Your task to perform on an android device: Open calendar and show me the second week of next month Image 0: 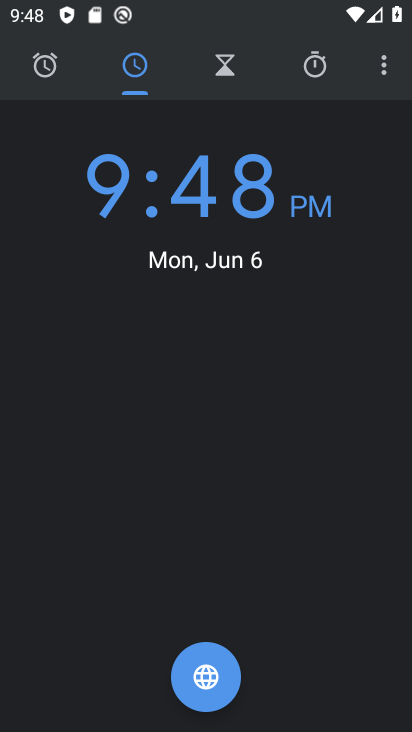
Step 0: press home button
Your task to perform on an android device: Open calendar and show me the second week of next month Image 1: 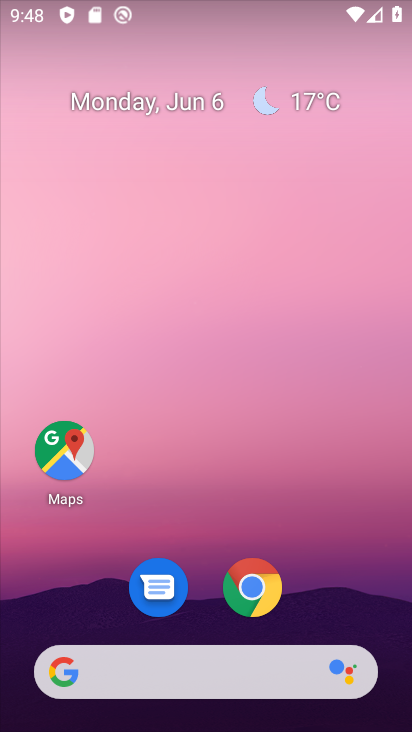
Step 1: drag from (355, 598) to (309, 128)
Your task to perform on an android device: Open calendar and show me the second week of next month Image 2: 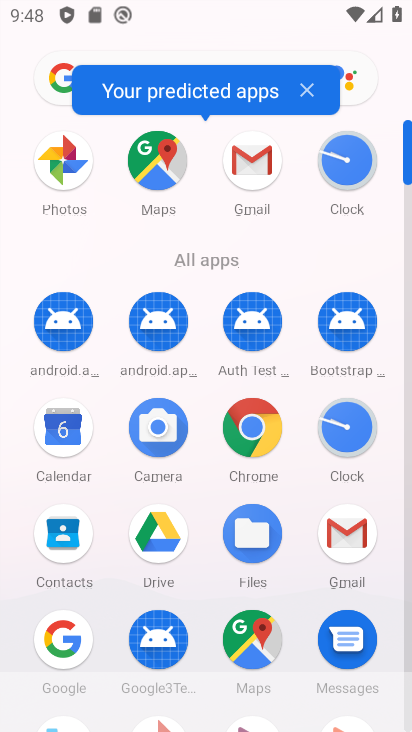
Step 2: click (68, 433)
Your task to perform on an android device: Open calendar and show me the second week of next month Image 3: 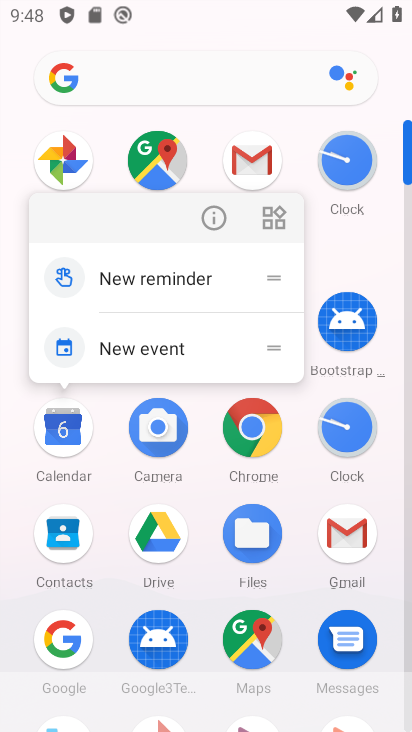
Step 3: click (68, 433)
Your task to perform on an android device: Open calendar and show me the second week of next month Image 4: 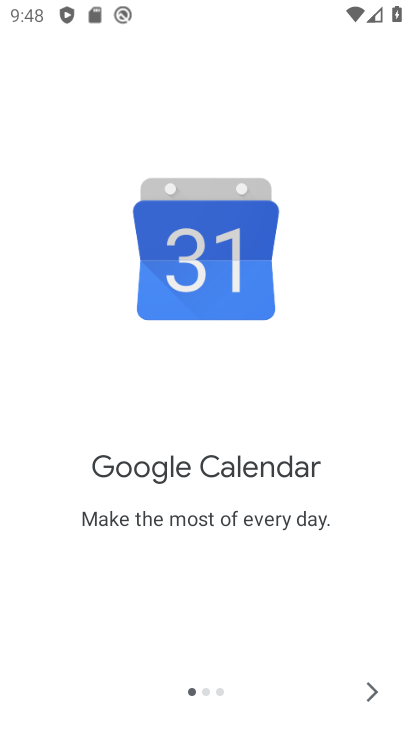
Step 4: click (386, 692)
Your task to perform on an android device: Open calendar and show me the second week of next month Image 5: 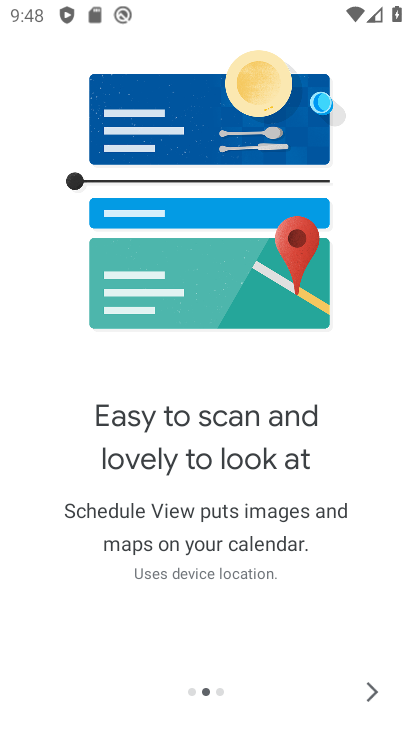
Step 5: click (386, 692)
Your task to perform on an android device: Open calendar and show me the second week of next month Image 6: 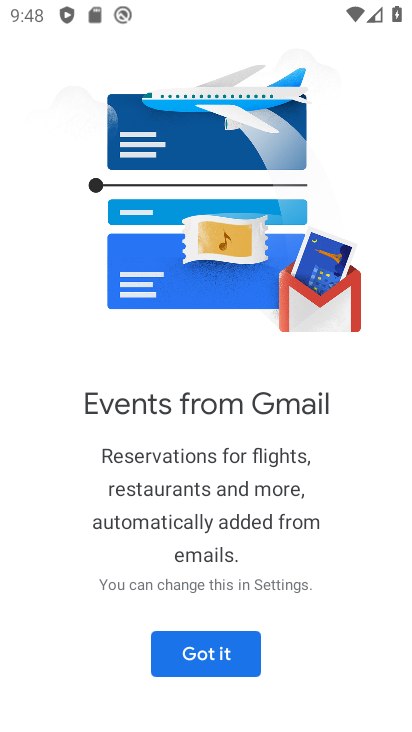
Step 6: click (218, 647)
Your task to perform on an android device: Open calendar and show me the second week of next month Image 7: 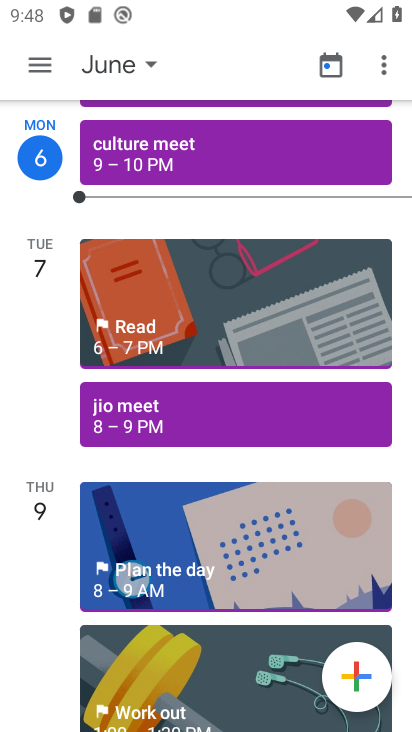
Step 7: click (42, 64)
Your task to perform on an android device: Open calendar and show me the second week of next month Image 8: 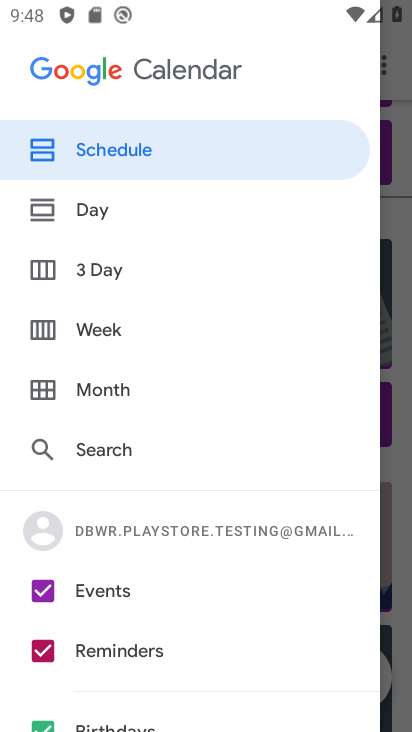
Step 8: click (124, 339)
Your task to perform on an android device: Open calendar and show me the second week of next month Image 9: 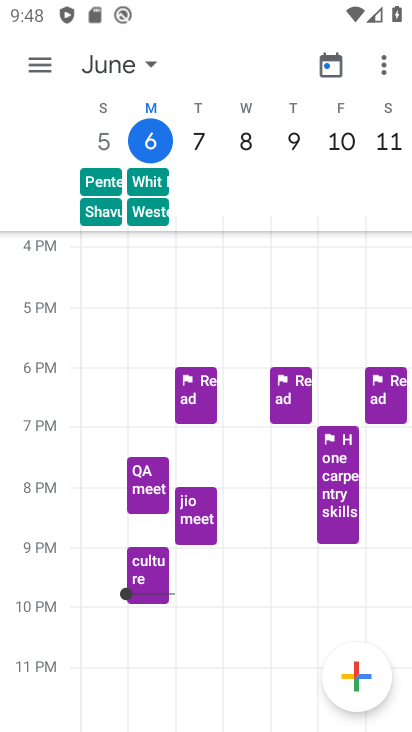
Step 9: click (146, 64)
Your task to perform on an android device: Open calendar and show me the second week of next month Image 10: 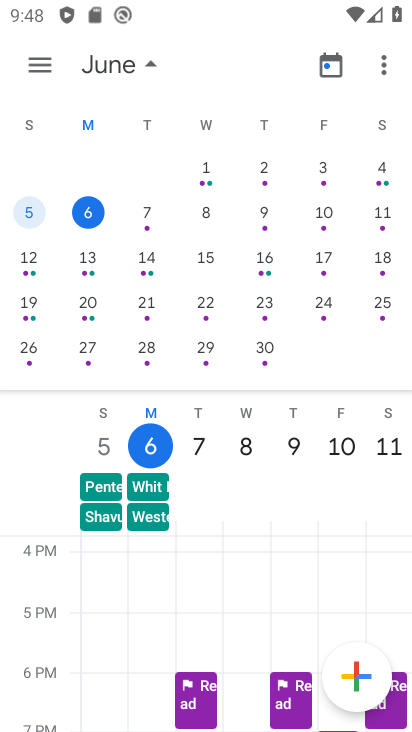
Step 10: drag from (392, 239) to (81, 268)
Your task to perform on an android device: Open calendar and show me the second week of next month Image 11: 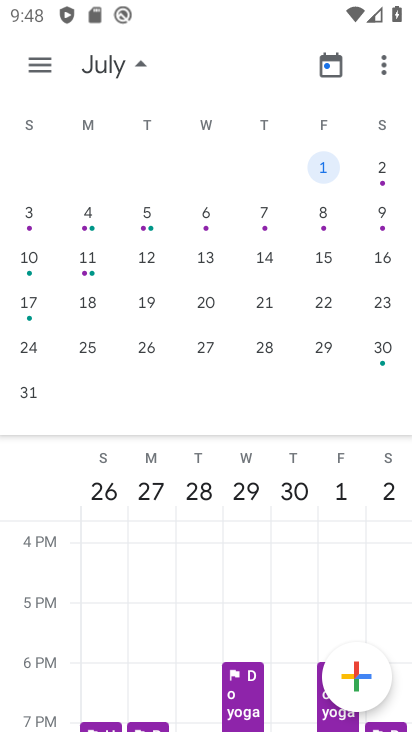
Step 11: click (213, 257)
Your task to perform on an android device: Open calendar and show me the second week of next month Image 12: 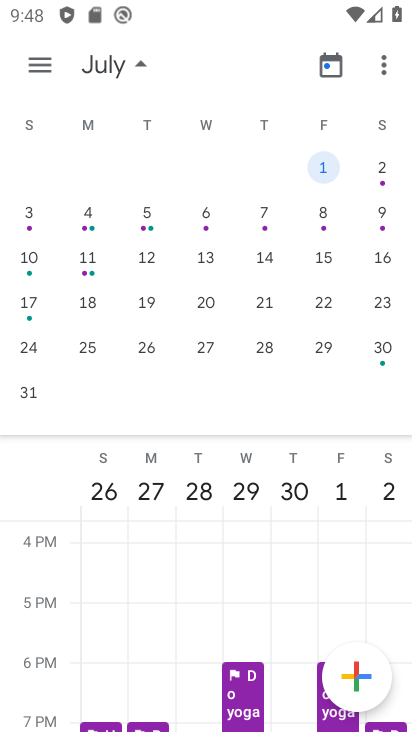
Step 12: click (204, 258)
Your task to perform on an android device: Open calendar and show me the second week of next month Image 13: 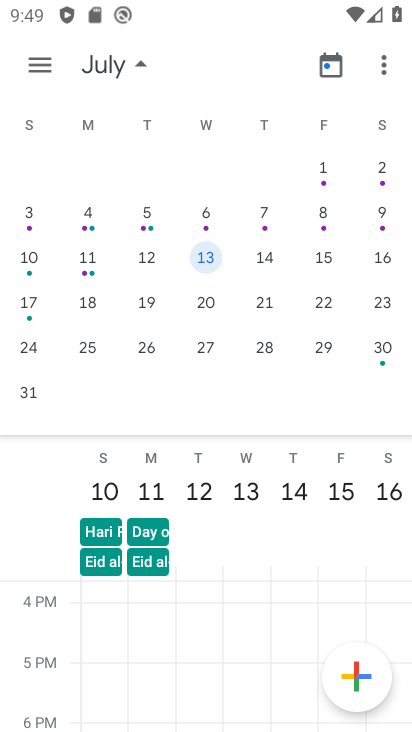
Step 13: task complete